Your task to perform on an android device: empty trash in the gmail app Image 0: 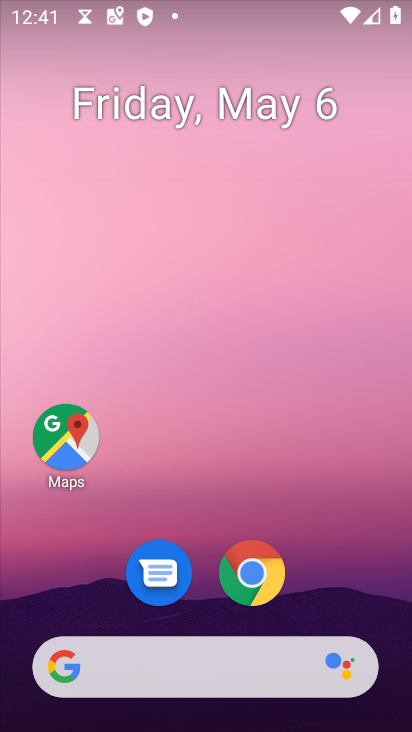
Step 0: drag from (323, 551) to (350, 311)
Your task to perform on an android device: empty trash in the gmail app Image 1: 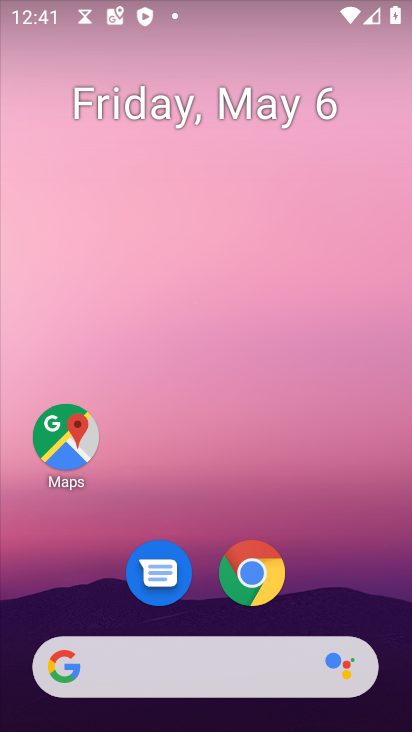
Step 1: drag from (306, 507) to (330, 251)
Your task to perform on an android device: empty trash in the gmail app Image 2: 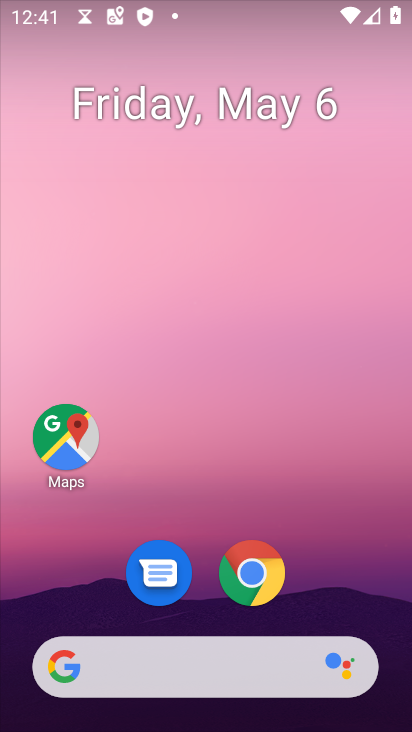
Step 2: drag from (313, 609) to (334, 264)
Your task to perform on an android device: empty trash in the gmail app Image 3: 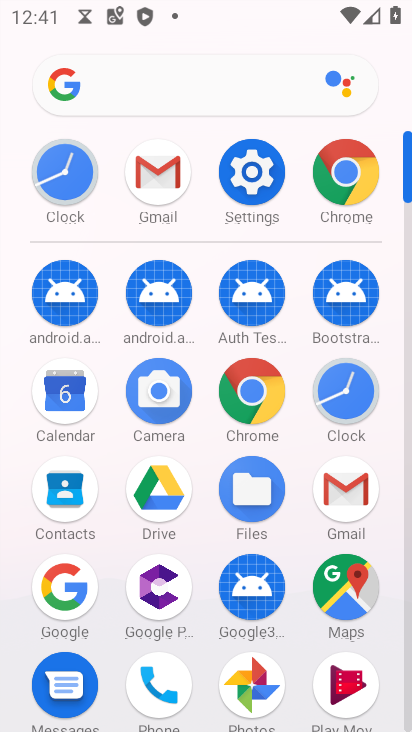
Step 3: click (143, 173)
Your task to perform on an android device: empty trash in the gmail app Image 4: 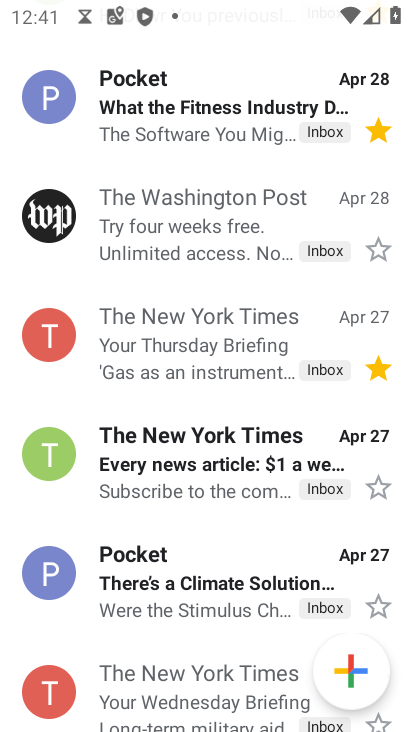
Step 4: drag from (188, 164) to (184, 635)
Your task to perform on an android device: empty trash in the gmail app Image 5: 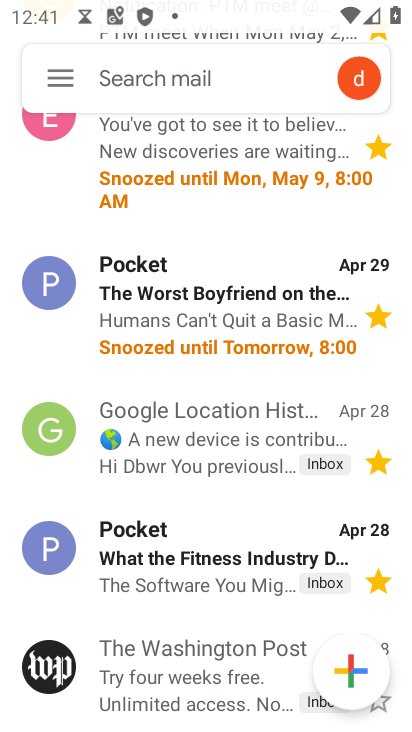
Step 5: click (50, 76)
Your task to perform on an android device: empty trash in the gmail app Image 6: 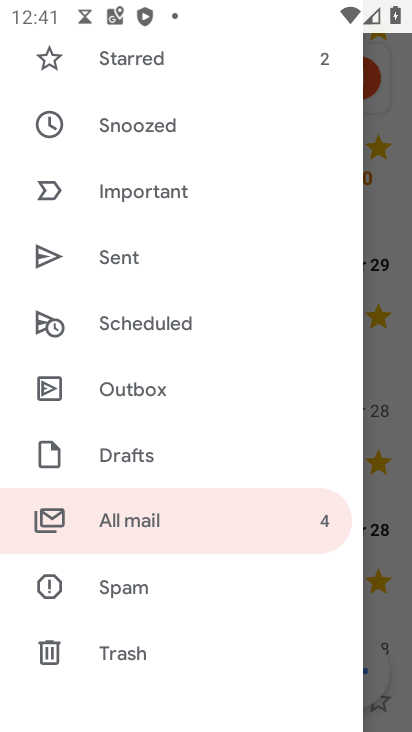
Step 6: drag from (151, 600) to (228, 220)
Your task to perform on an android device: empty trash in the gmail app Image 7: 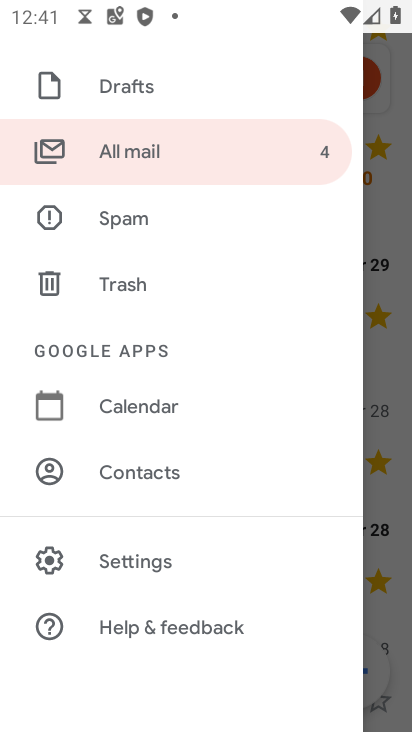
Step 7: click (124, 282)
Your task to perform on an android device: empty trash in the gmail app Image 8: 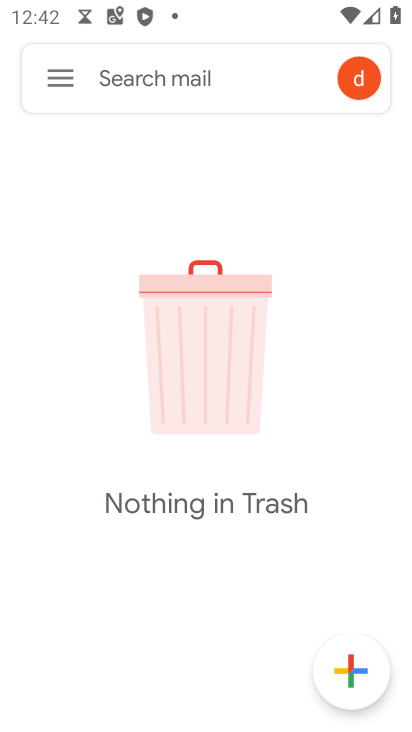
Step 8: task complete